Your task to perform on an android device: Open internet settings Image 0: 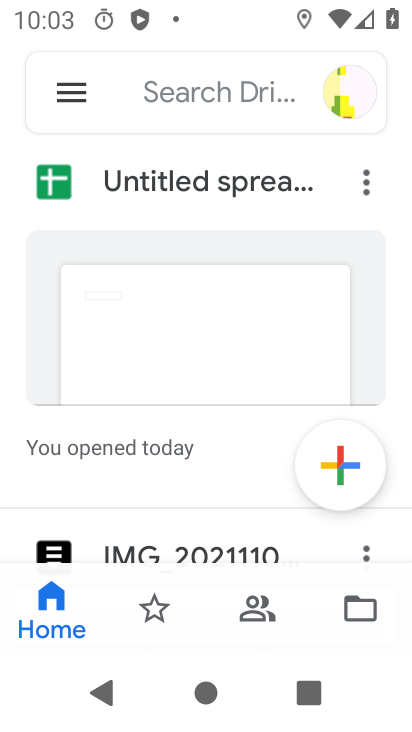
Step 0: press home button
Your task to perform on an android device: Open internet settings Image 1: 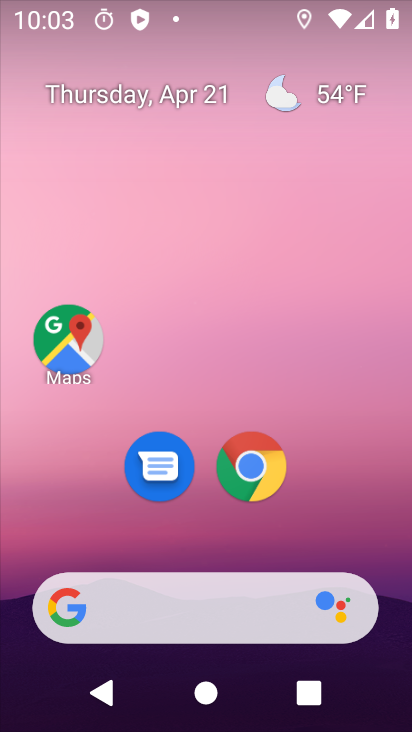
Step 1: drag from (343, 506) to (331, 186)
Your task to perform on an android device: Open internet settings Image 2: 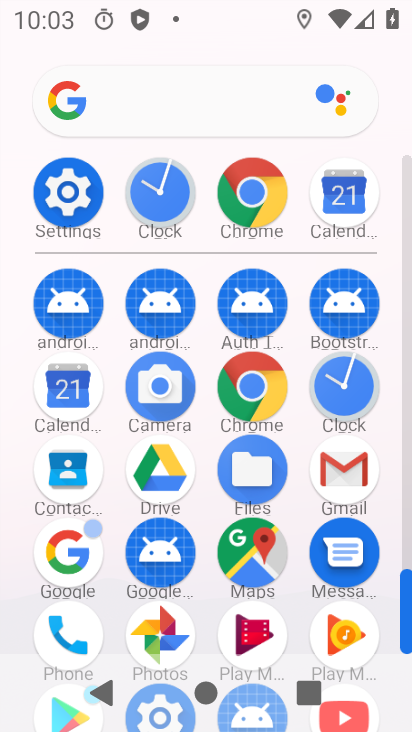
Step 2: click (64, 196)
Your task to perform on an android device: Open internet settings Image 3: 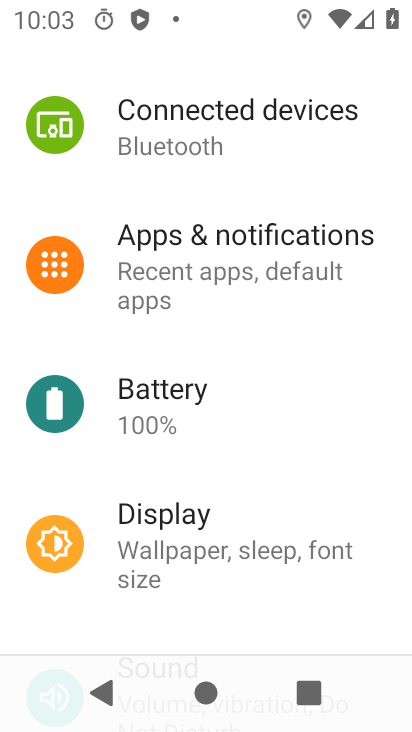
Step 3: drag from (269, 193) to (266, 480)
Your task to perform on an android device: Open internet settings Image 4: 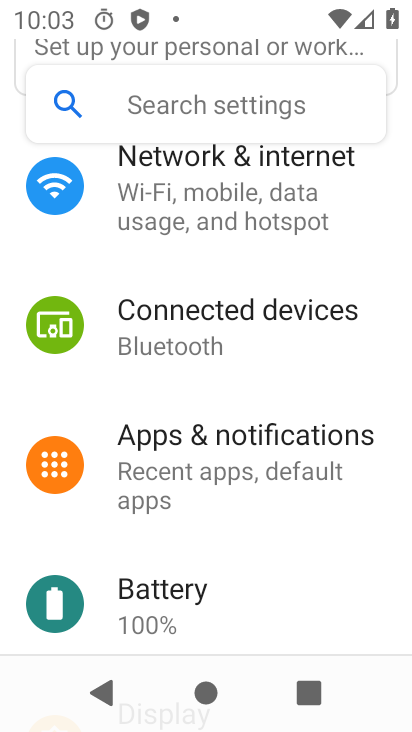
Step 4: drag from (328, 248) to (309, 532)
Your task to perform on an android device: Open internet settings Image 5: 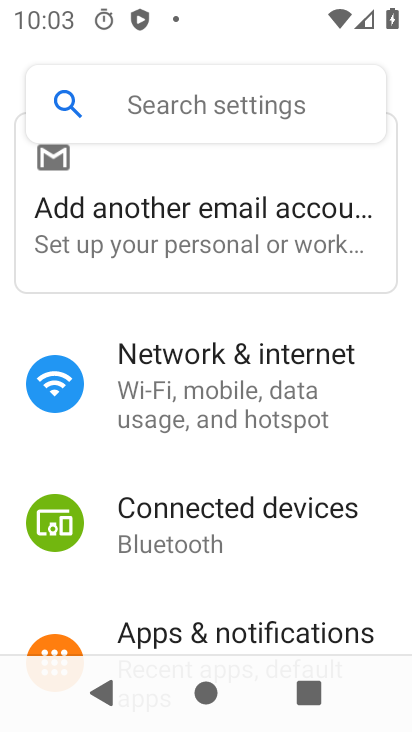
Step 5: click (248, 375)
Your task to perform on an android device: Open internet settings Image 6: 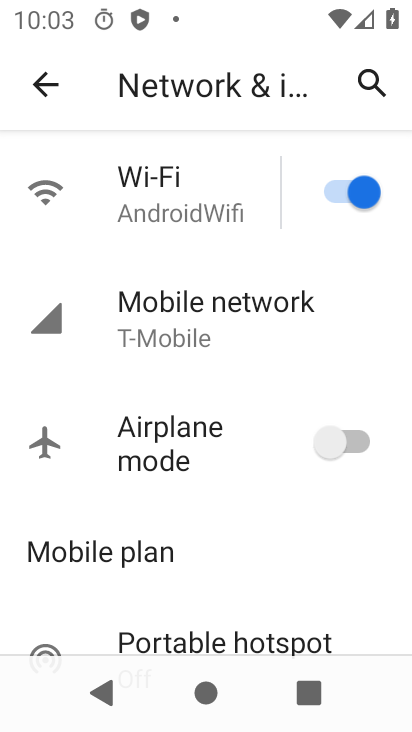
Step 6: drag from (198, 563) to (236, 325)
Your task to perform on an android device: Open internet settings Image 7: 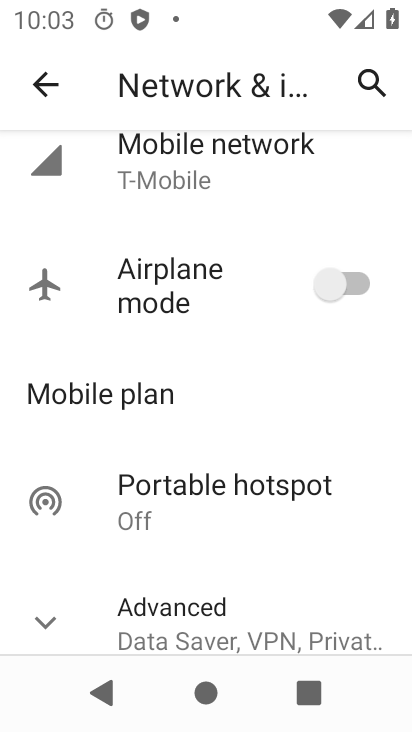
Step 7: click (205, 168)
Your task to perform on an android device: Open internet settings Image 8: 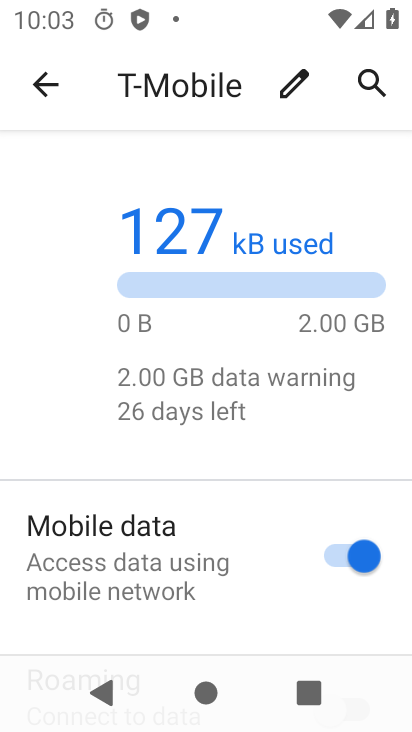
Step 8: task complete